Your task to perform on an android device: What is the recent news? Image 0: 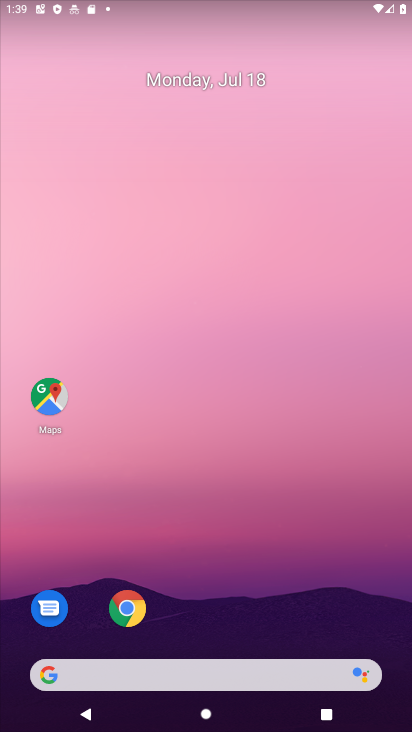
Step 0: drag from (5, 235) to (408, 204)
Your task to perform on an android device: What is the recent news? Image 1: 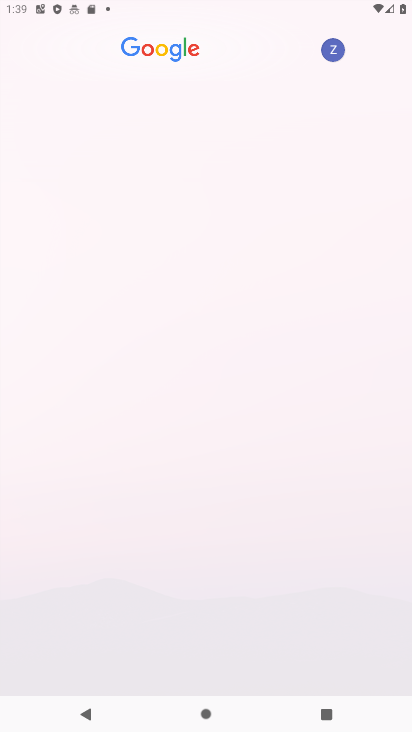
Step 1: task complete